Your task to perform on an android device: Search for Mexican restaurants on Maps Image 0: 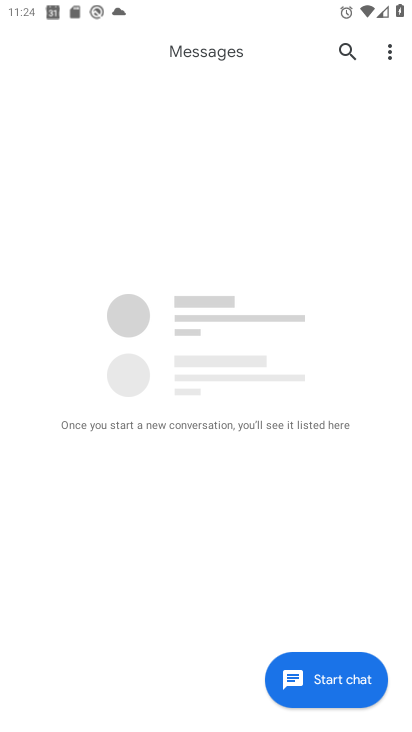
Step 0: press back button
Your task to perform on an android device: Search for Mexican restaurants on Maps Image 1: 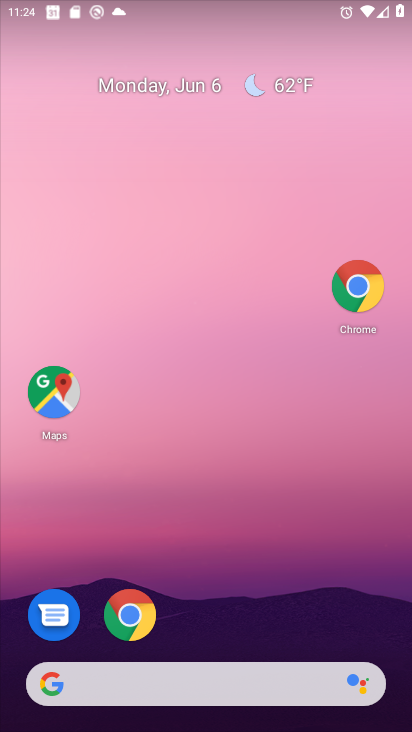
Step 1: drag from (238, 680) to (113, 199)
Your task to perform on an android device: Search for Mexican restaurants on Maps Image 2: 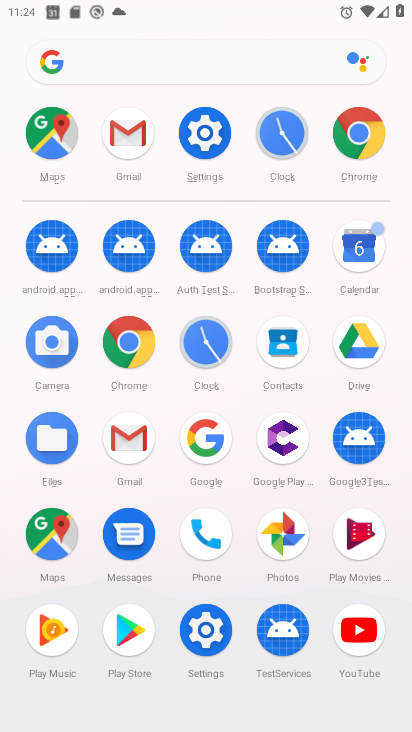
Step 2: click (40, 541)
Your task to perform on an android device: Search for Mexican restaurants on Maps Image 3: 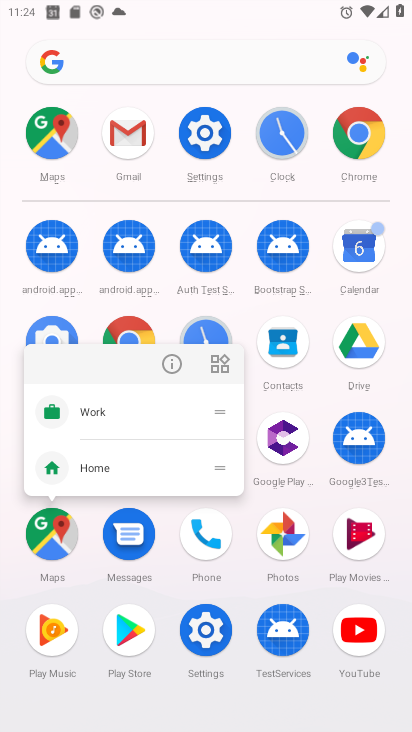
Step 3: click (64, 508)
Your task to perform on an android device: Search for Mexican restaurants on Maps Image 4: 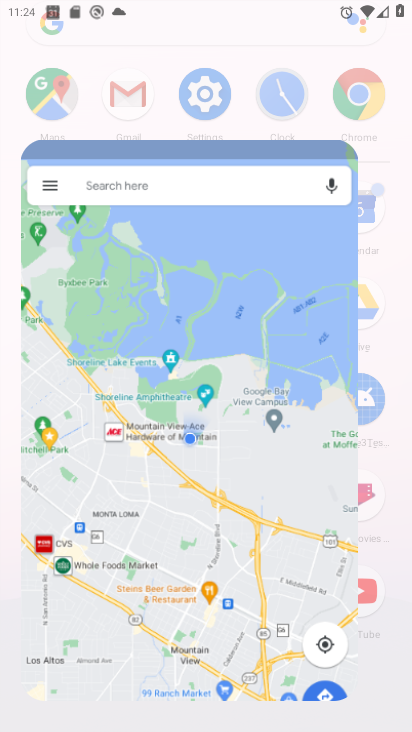
Step 4: click (41, 536)
Your task to perform on an android device: Search for Mexican restaurants on Maps Image 5: 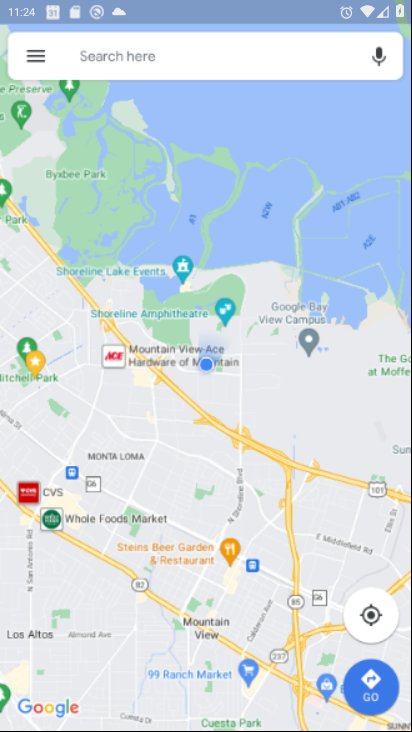
Step 5: click (41, 536)
Your task to perform on an android device: Search for Mexican restaurants on Maps Image 6: 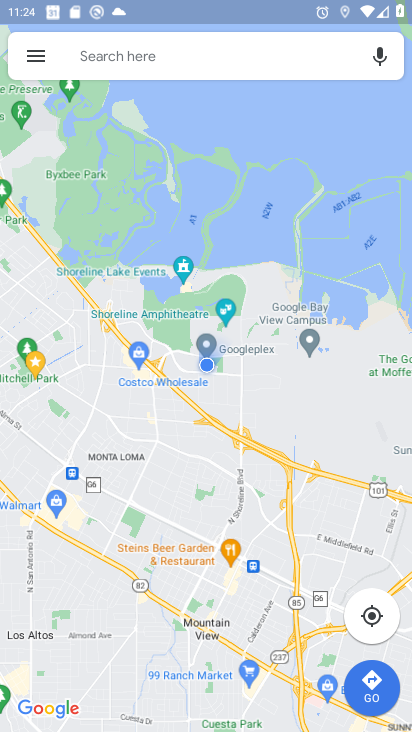
Step 6: click (104, 57)
Your task to perform on an android device: Search for Mexican restaurants on Maps Image 7: 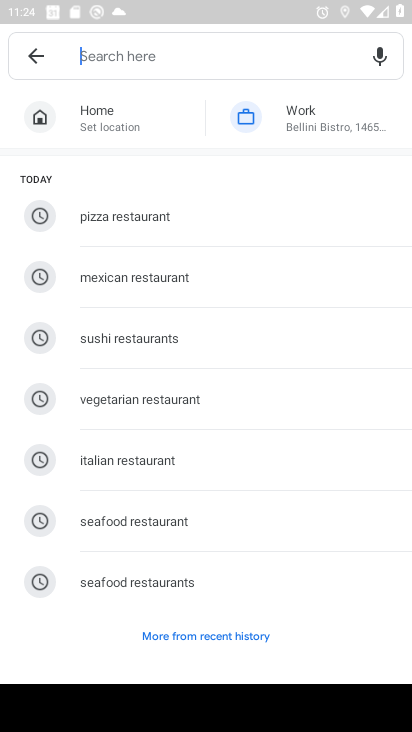
Step 7: click (101, 283)
Your task to perform on an android device: Search for Mexican restaurants on Maps Image 8: 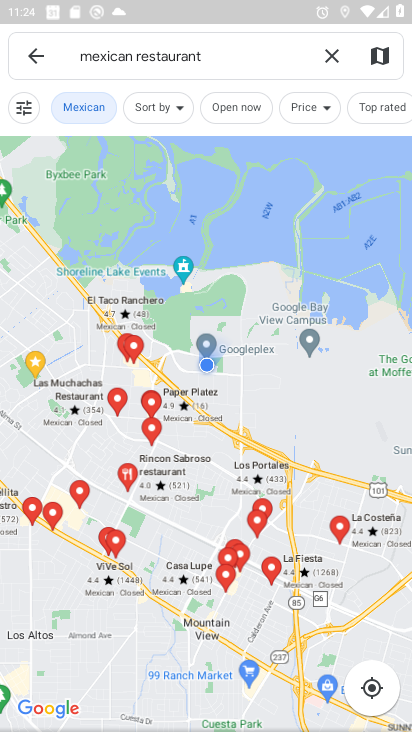
Step 8: task complete